Your task to perform on an android device: Search for alienware area 51 on walmart.com, select the first entry, and add it to the cart. Image 0: 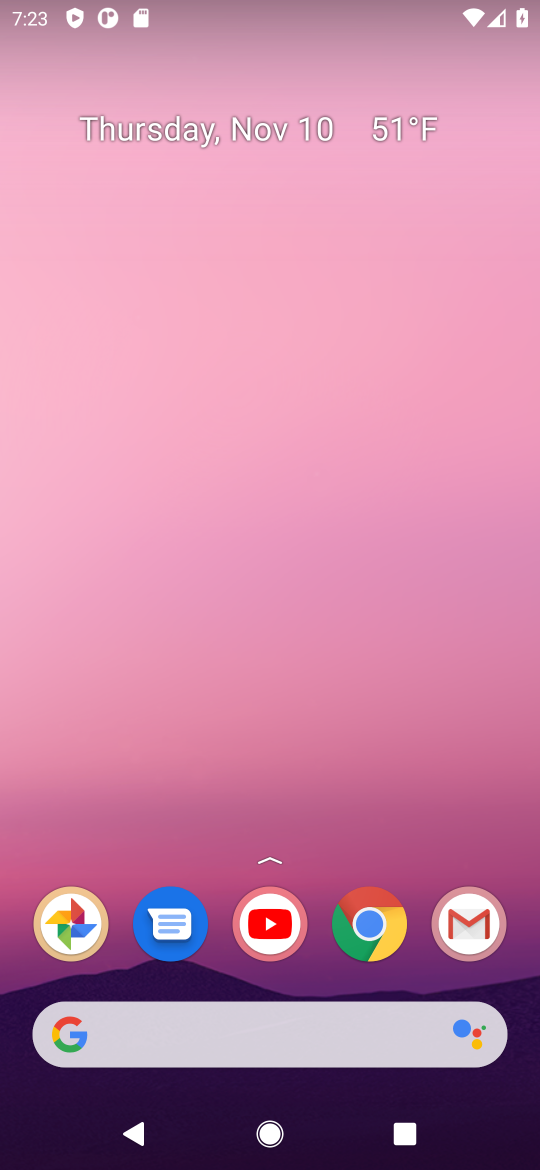
Step 0: click (378, 921)
Your task to perform on an android device: Search for alienware area 51 on walmart.com, select the first entry, and add it to the cart. Image 1: 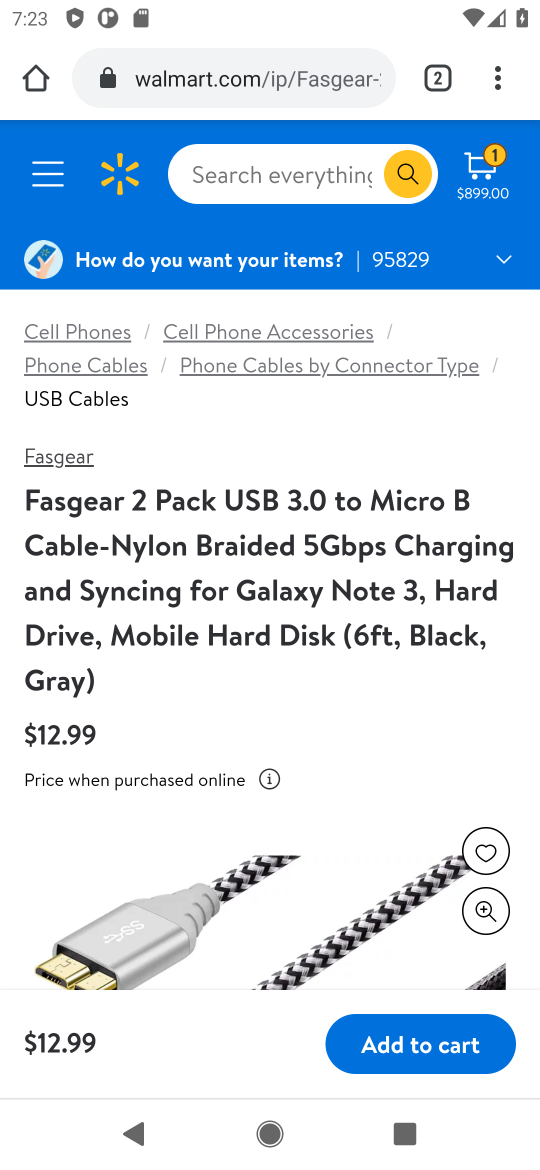
Step 1: click (222, 162)
Your task to perform on an android device: Search for alienware area 51 on walmart.com, select the first entry, and add it to the cart. Image 2: 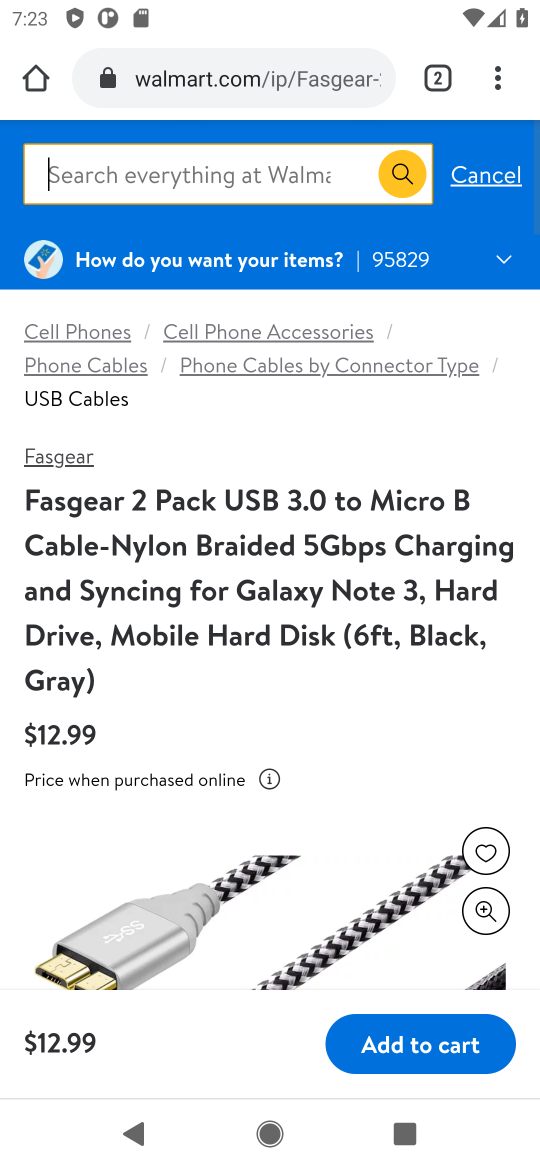
Step 2: type "alienware area 51"
Your task to perform on an android device: Search for alienware area 51 on walmart.com, select the first entry, and add it to the cart. Image 3: 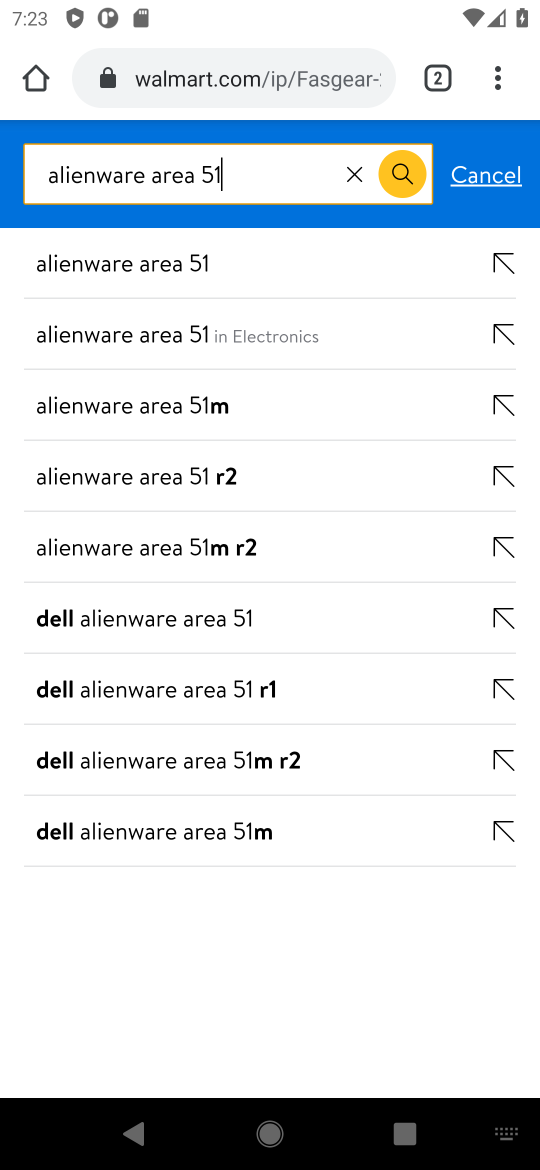
Step 3: click (149, 266)
Your task to perform on an android device: Search for alienware area 51 on walmart.com, select the first entry, and add it to the cart. Image 4: 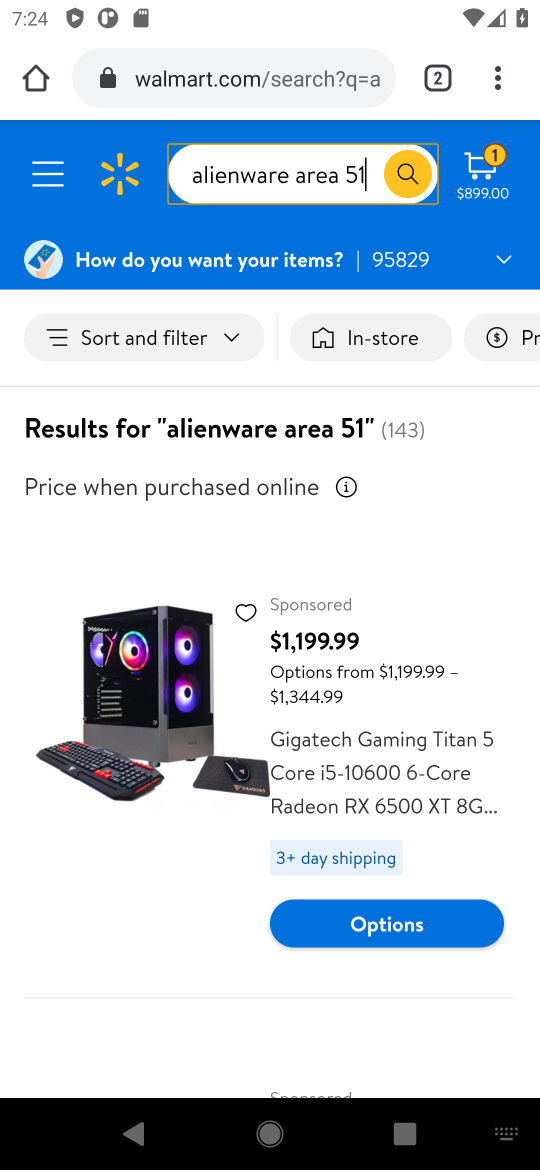
Step 4: task complete